Your task to perform on an android device: stop showing notifications on the lock screen Image 0: 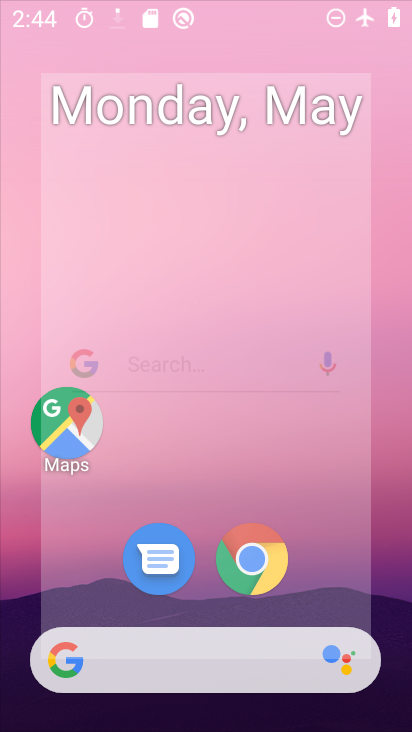
Step 0: drag from (186, 619) to (254, 321)
Your task to perform on an android device: stop showing notifications on the lock screen Image 1: 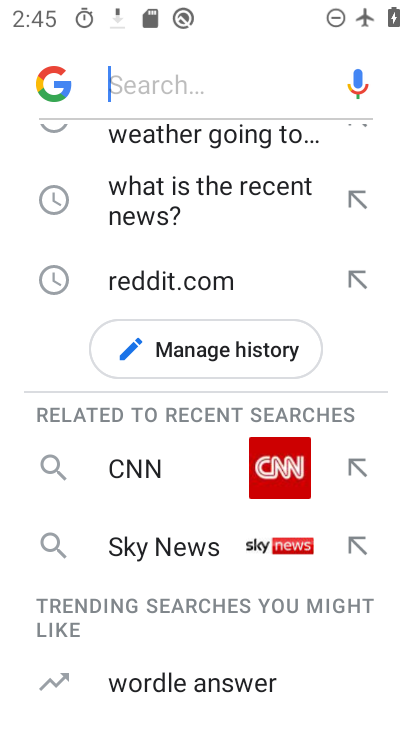
Step 1: drag from (242, 542) to (368, 204)
Your task to perform on an android device: stop showing notifications on the lock screen Image 2: 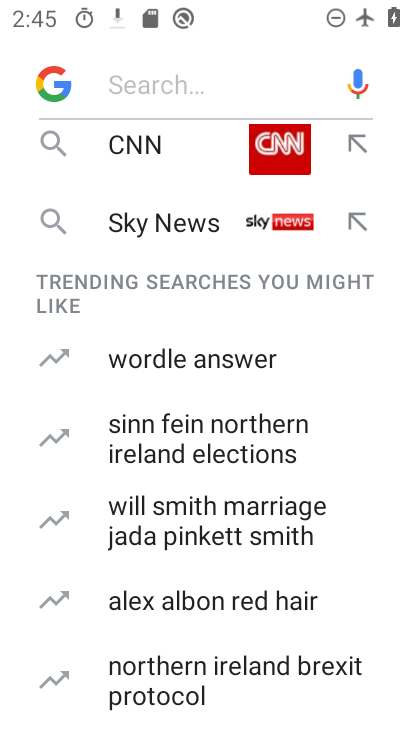
Step 2: press back button
Your task to perform on an android device: stop showing notifications on the lock screen Image 3: 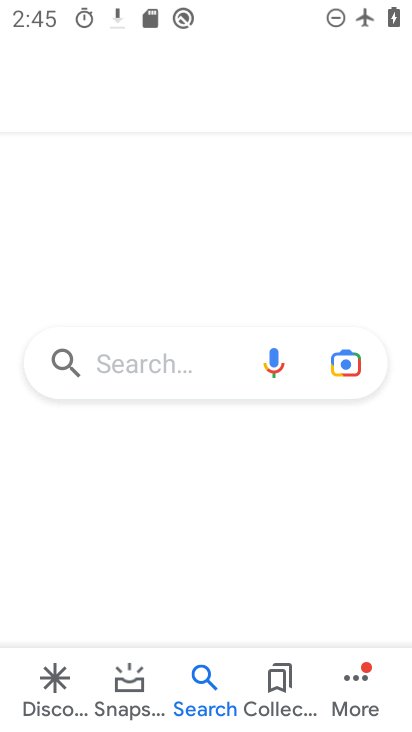
Step 3: drag from (193, 602) to (327, 300)
Your task to perform on an android device: stop showing notifications on the lock screen Image 4: 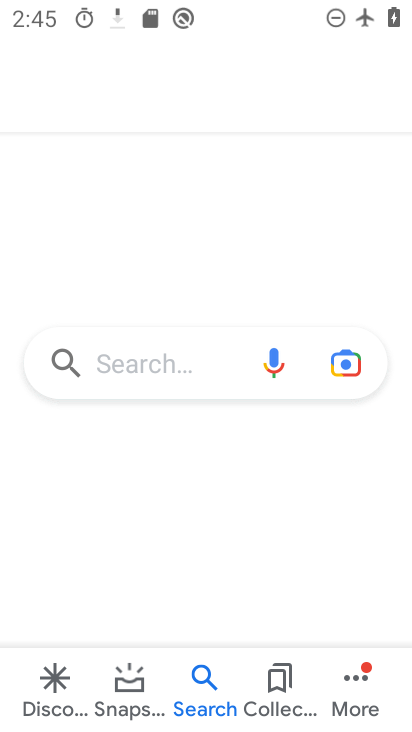
Step 4: press home button
Your task to perform on an android device: stop showing notifications on the lock screen Image 5: 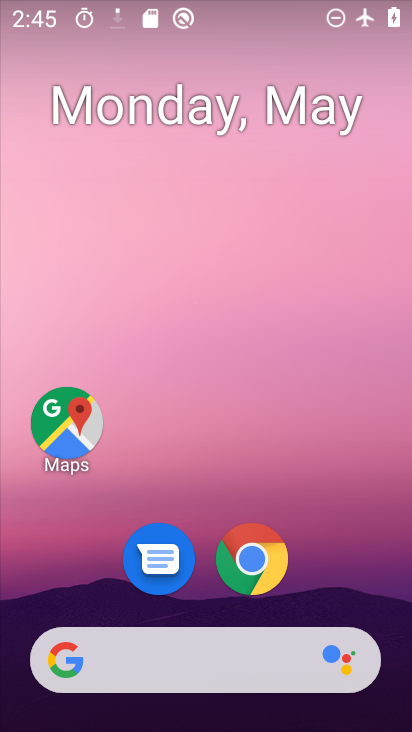
Step 5: drag from (211, 590) to (326, 188)
Your task to perform on an android device: stop showing notifications on the lock screen Image 6: 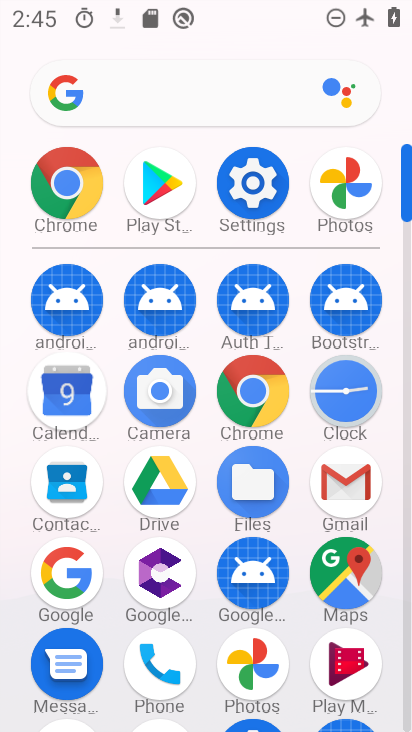
Step 6: click (258, 170)
Your task to perform on an android device: stop showing notifications on the lock screen Image 7: 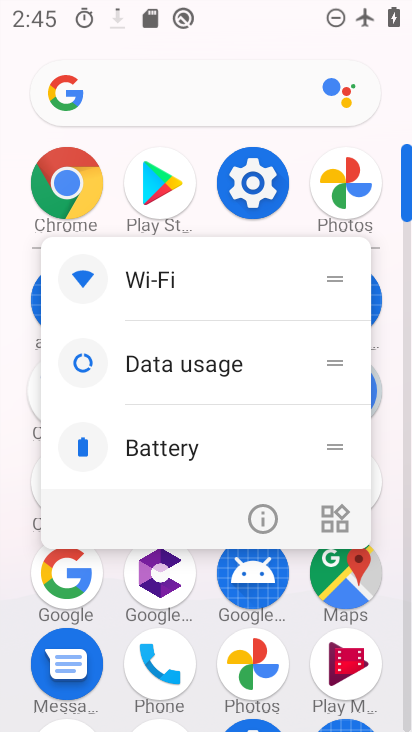
Step 7: click (256, 517)
Your task to perform on an android device: stop showing notifications on the lock screen Image 8: 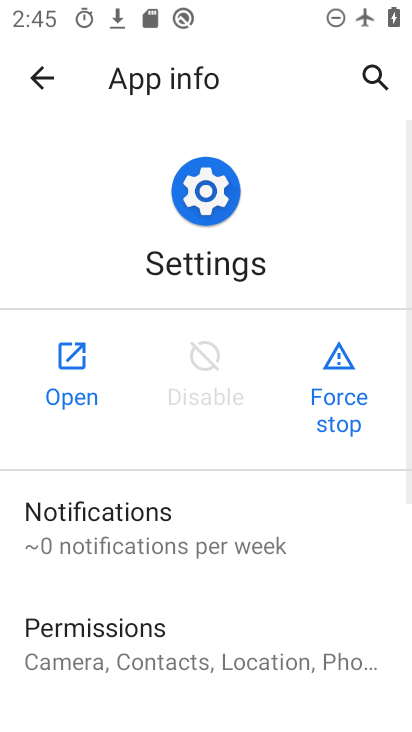
Step 8: click (67, 364)
Your task to perform on an android device: stop showing notifications on the lock screen Image 9: 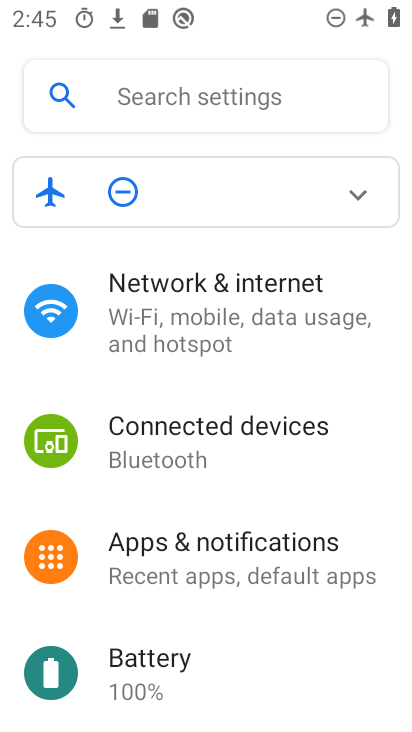
Step 9: drag from (213, 605) to (286, 223)
Your task to perform on an android device: stop showing notifications on the lock screen Image 10: 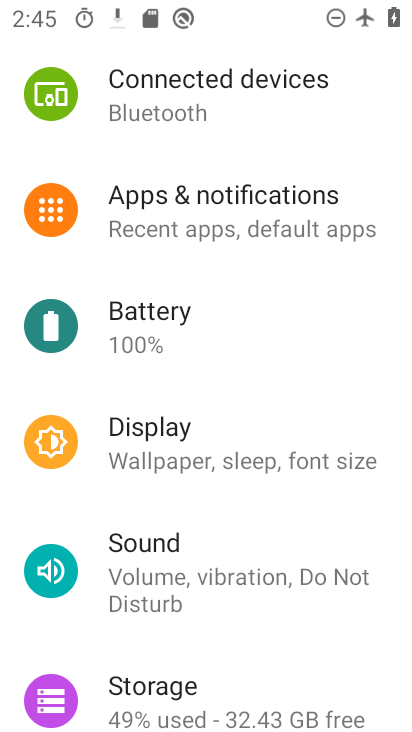
Step 10: drag from (213, 552) to (254, 275)
Your task to perform on an android device: stop showing notifications on the lock screen Image 11: 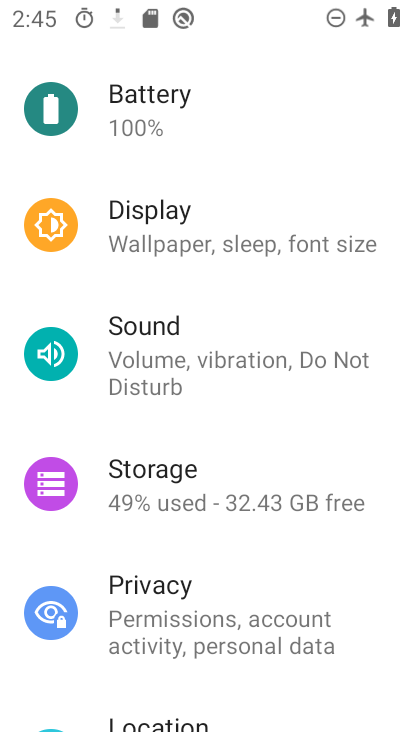
Step 11: drag from (193, 631) to (255, 304)
Your task to perform on an android device: stop showing notifications on the lock screen Image 12: 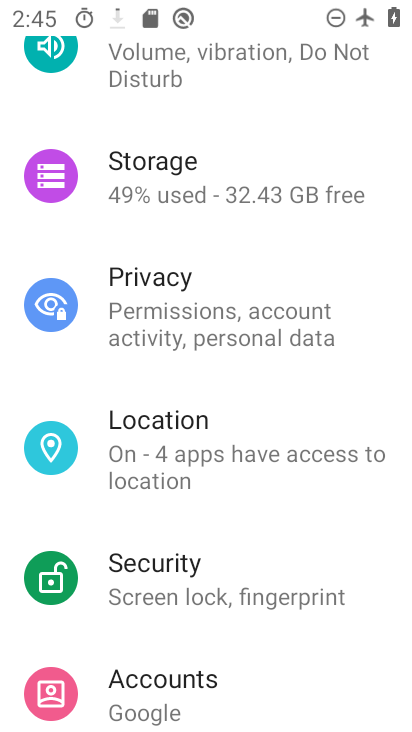
Step 12: drag from (258, 163) to (247, 652)
Your task to perform on an android device: stop showing notifications on the lock screen Image 13: 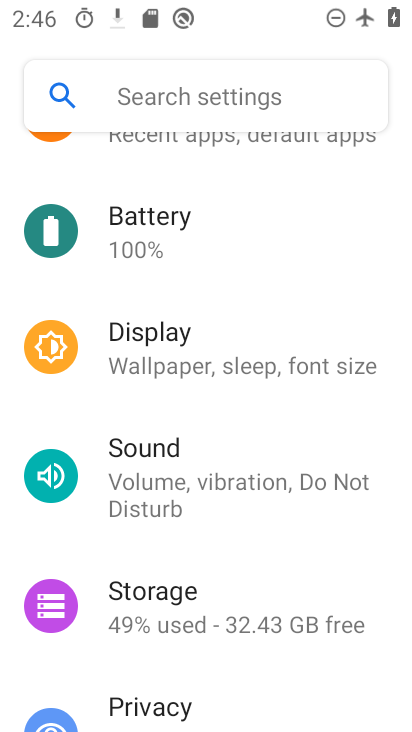
Step 13: drag from (258, 311) to (236, 701)
Your task to perform on an android device: stop showing notifications on the lock screen Image 14: 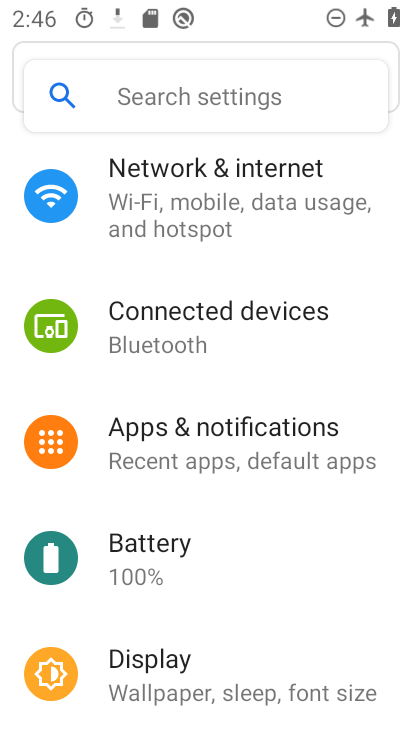
Step 14: click (219, 431)
Your task to perform on an android device: stop showing notifications on the lock screen Image 15: 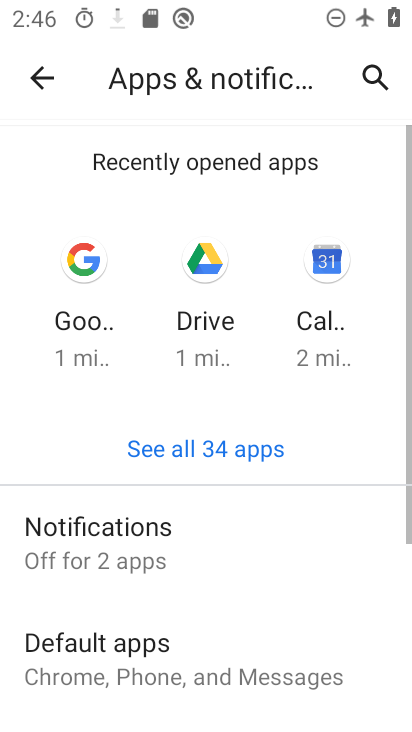
Step 15: drag from (232, 608) to (341, 362)
Your task to perform on an android device: stop showing notifications on the lock screen Image 16: 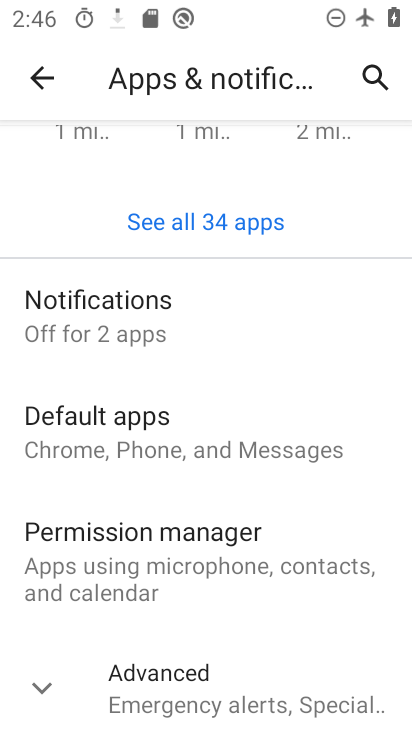
Step 16: click (193, 337)
Your task to perform on an android device: stop showing notifications on the lock screen Image 17: 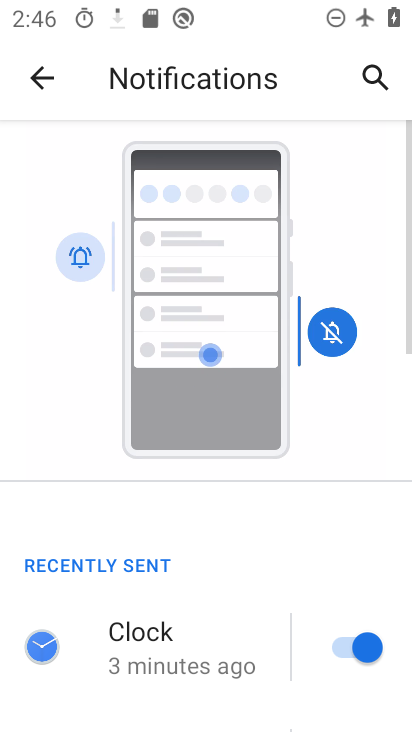
Step 17: drag from (324, 605) to (410, 276)
Your task to perform on an android device: stop showing notifications on the lock screen Image 18: 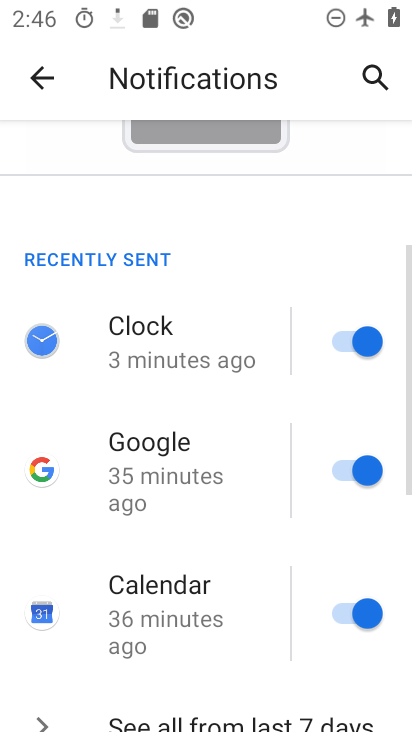
Step 18: drag from (309, 521) to (403, 321)
Your task to perform on an android device: stop showing notifications on the lock screen Image 19: 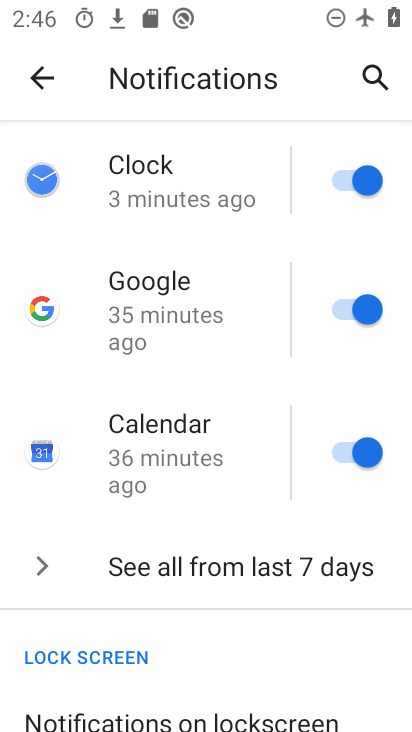
Step 19: drag from (201, 647) to (302, 369)
Your task to perform on an android device: stop showing notifications on the lock screen Image 20: 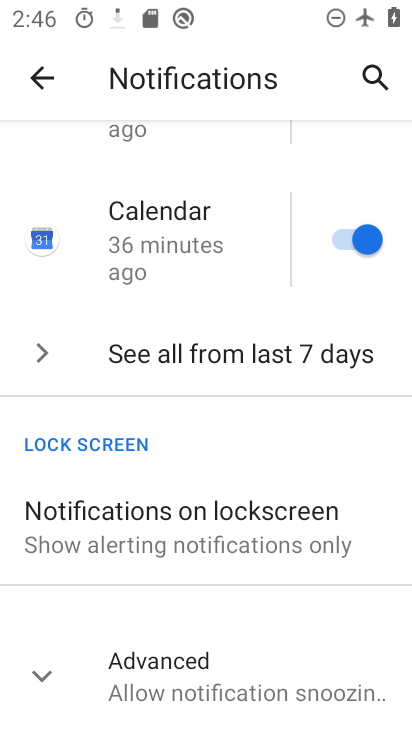
Step 20: click (226, 547)
Your task to perform on an android device: stop showing notifications on the lock screen Image 21: 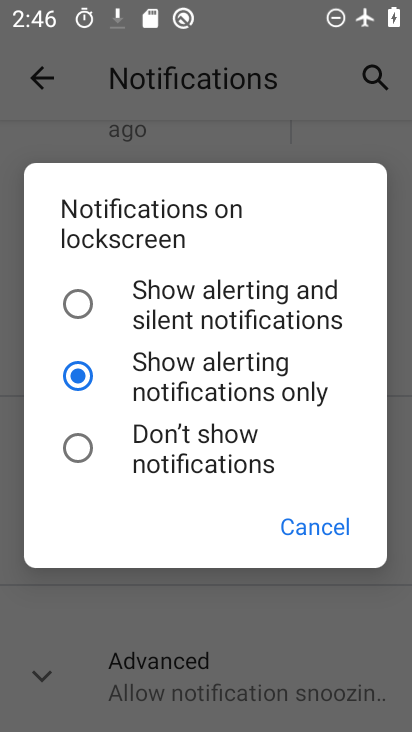
Step 21: click (150, 352)
Your task to perform on an android device: stop showing notifications on the lock screen Image 22: 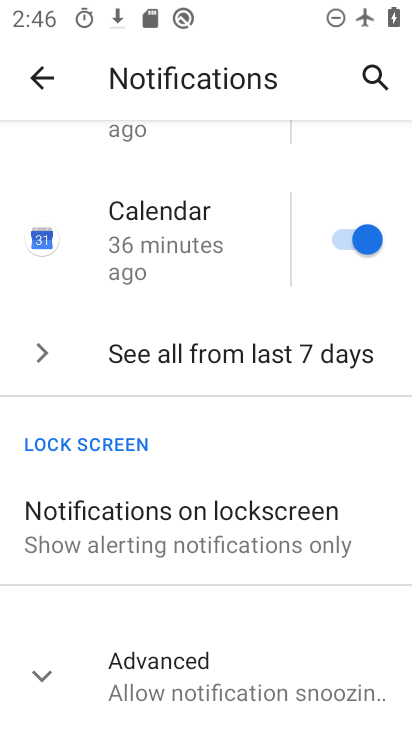
Step 22: click (138, 578)
Your task to perform on an android device: stop showing notifications on the lock screen Image 23: 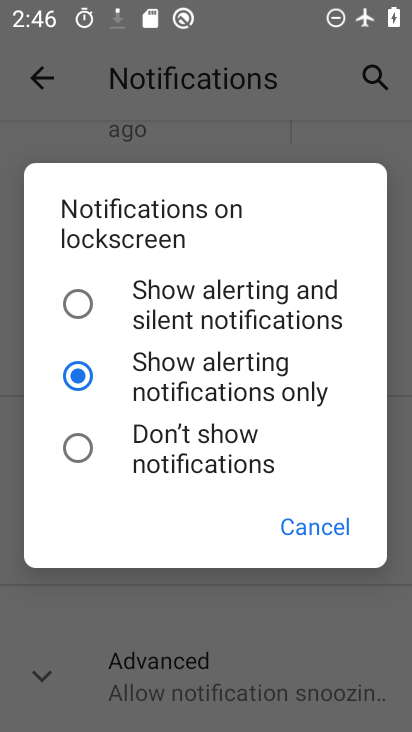
Step 23: click (154, 459)
Your task to perform on an android device: stop showing notifications on the lock screen Image 24: 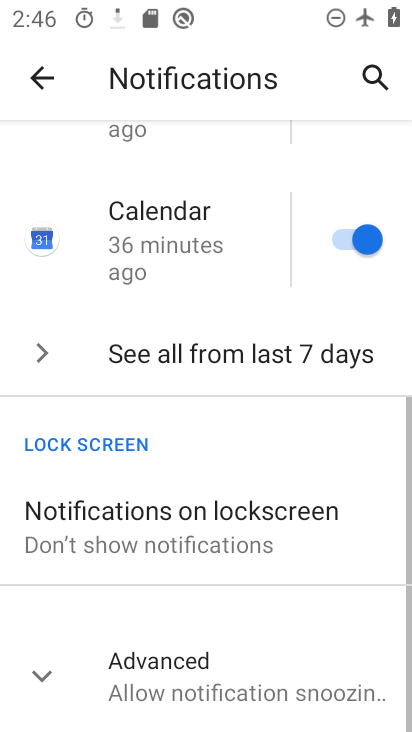
Step 24: task complete